Your task to perform on an android device: open app "DoorDash - Dasher" (install if not already installed) Image 0: 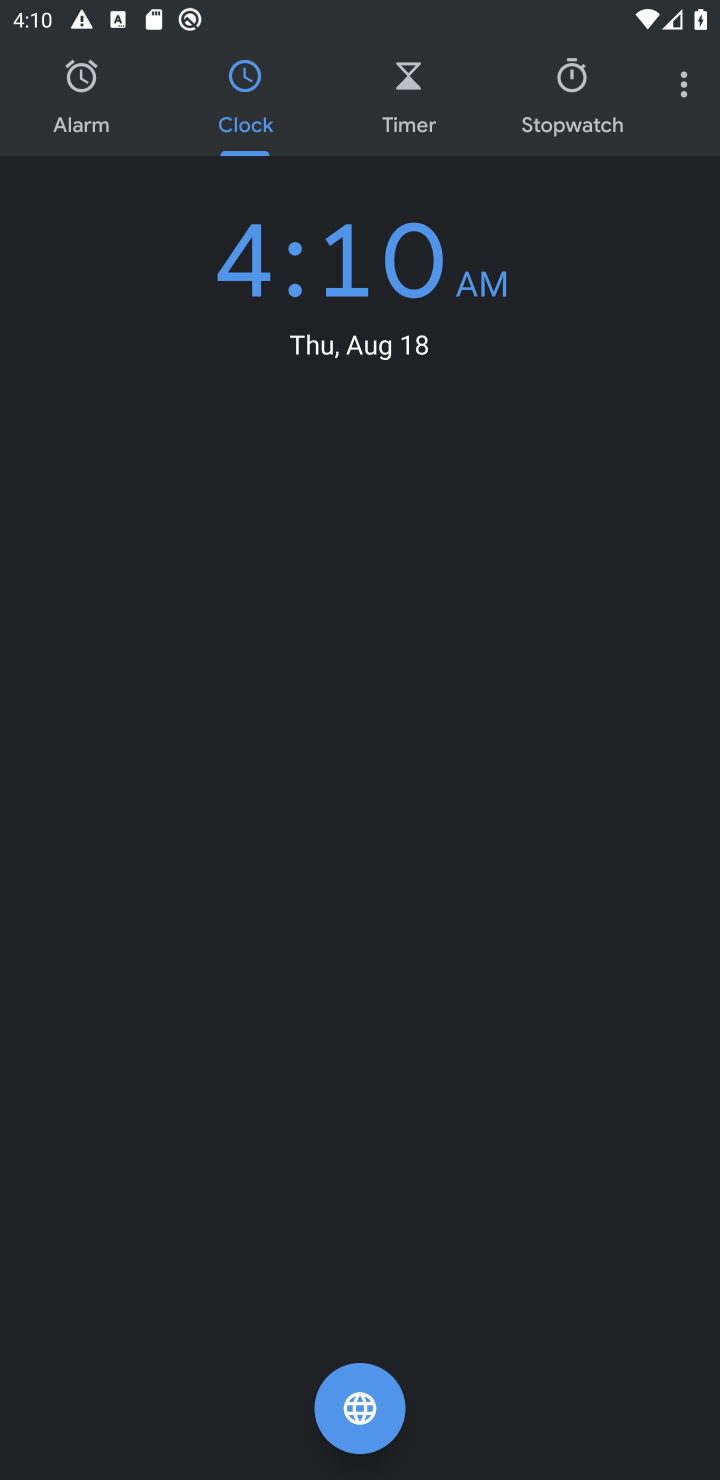
Step 0: press home button
Your task to perform on an android device: open app "DoorDash - Dasher" (install if not already installed) Image 1: 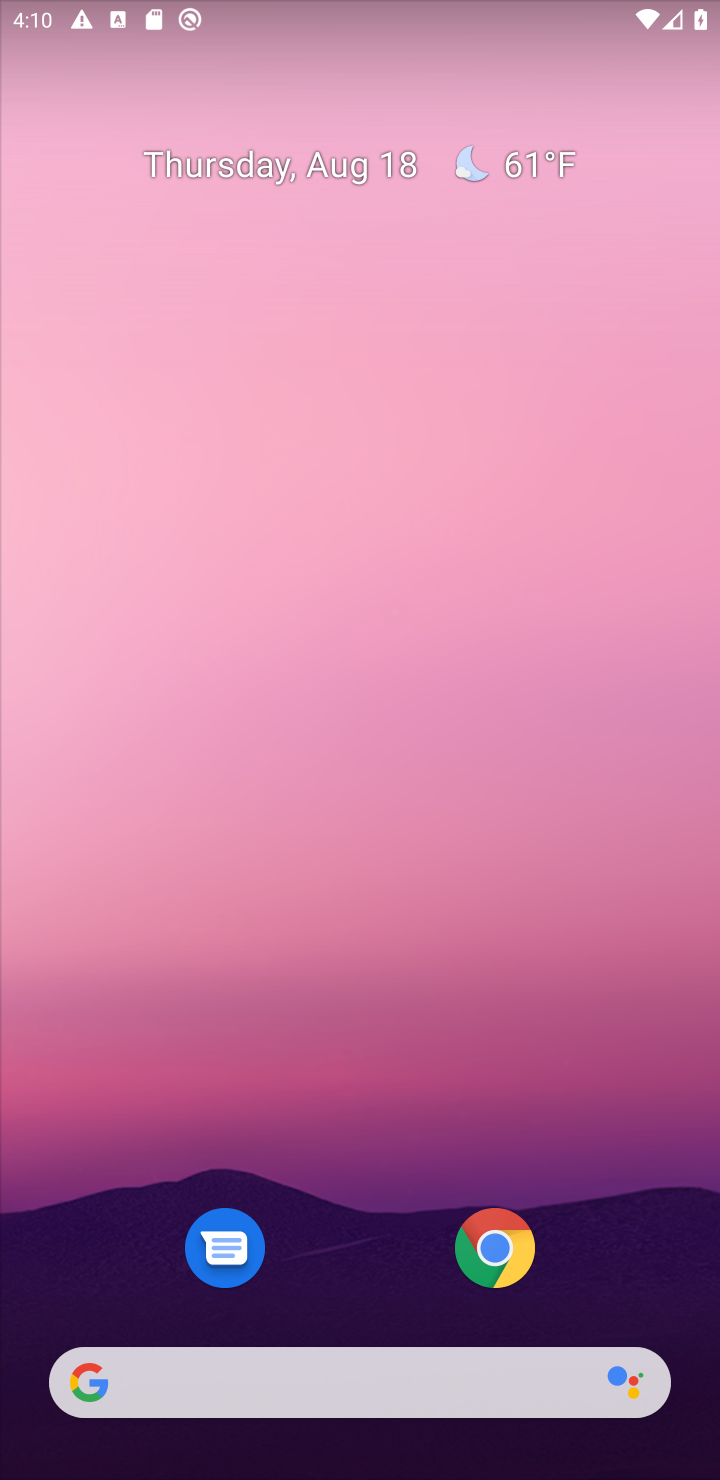
Step 1: drag from (378, 1321) to (354, 40)
Your task to perform on an android device: open app "DoorDash - Dasher" (install if not already installed) Image 2: 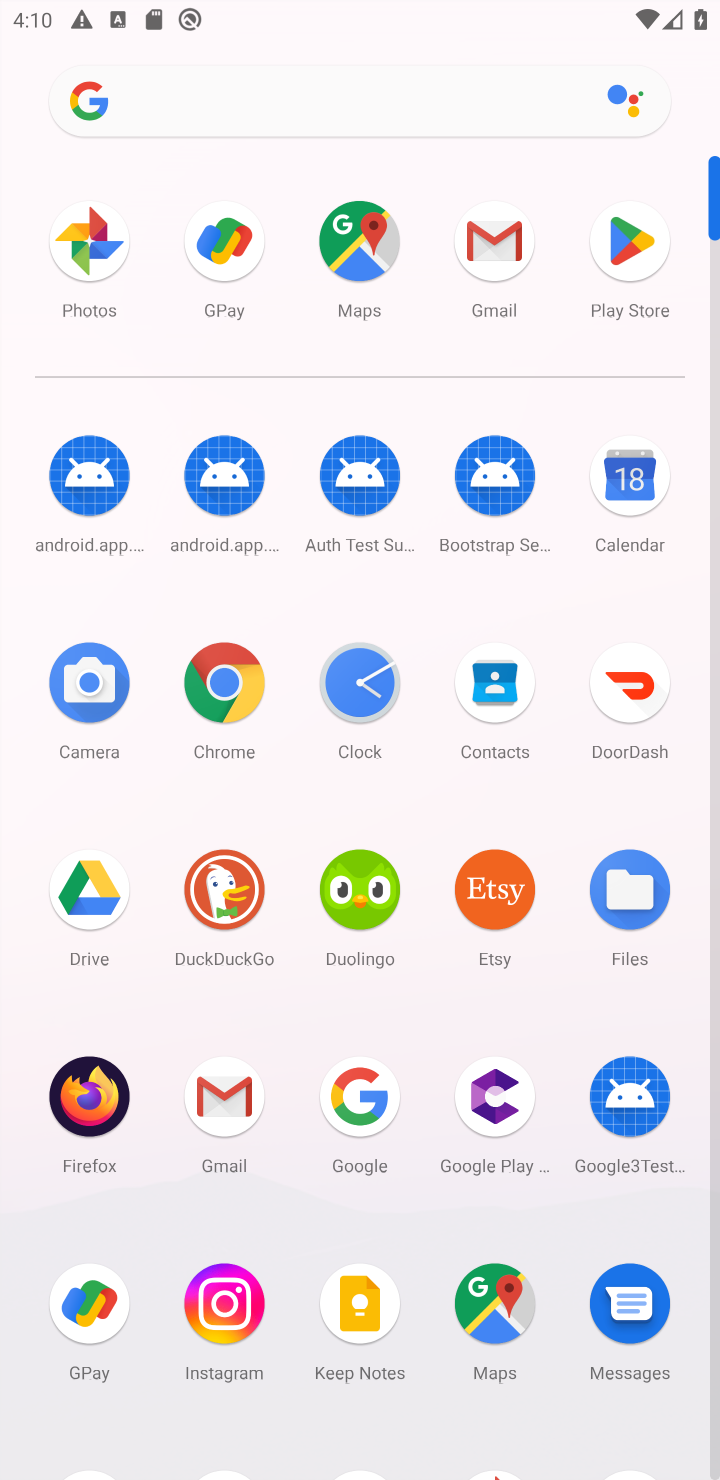
Step 2: click (620, 243)
Your task to perform on an android device: open app "DoorDash - Dasher" (install if not already installed) Image 3: 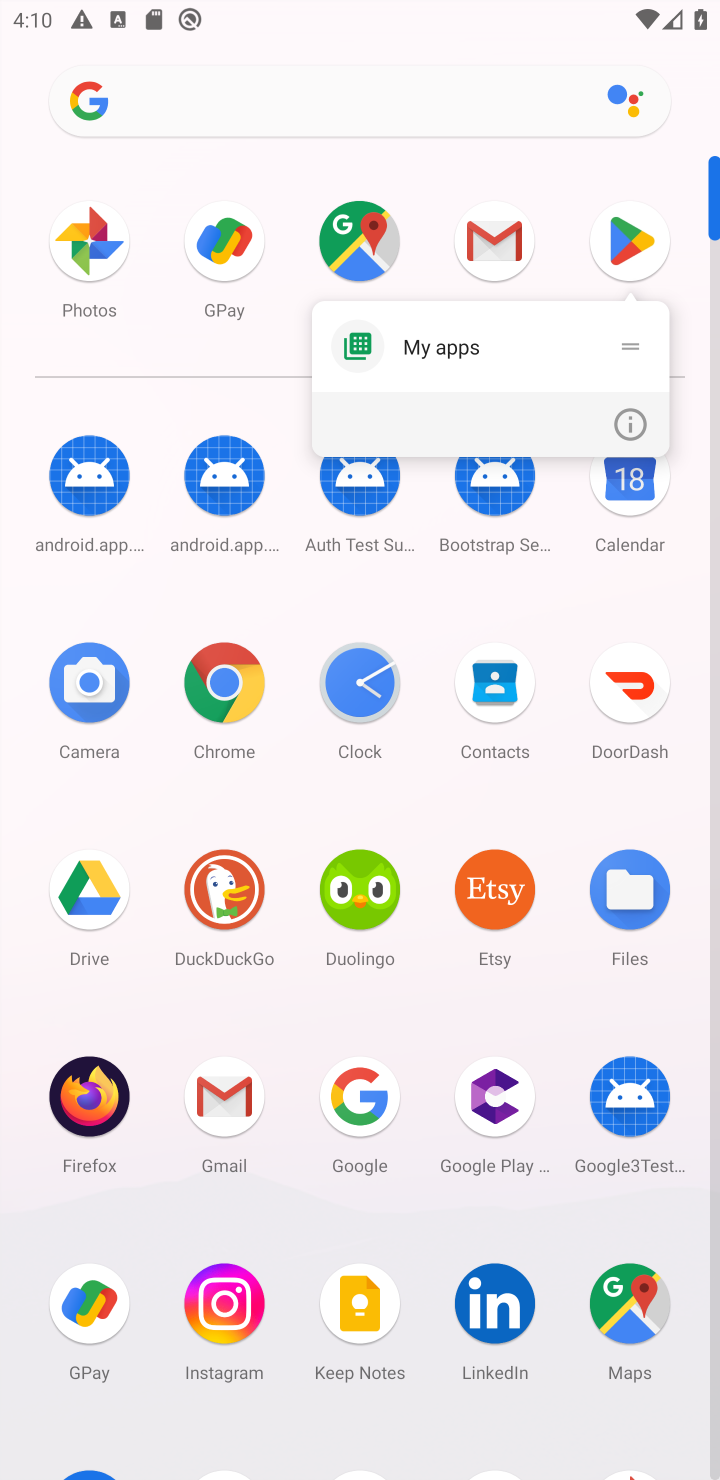
Step 3: click (626, 233)
Your task to perform on an android device: open app "DoorDash - Dasher" (install if not already installed) Image 4: 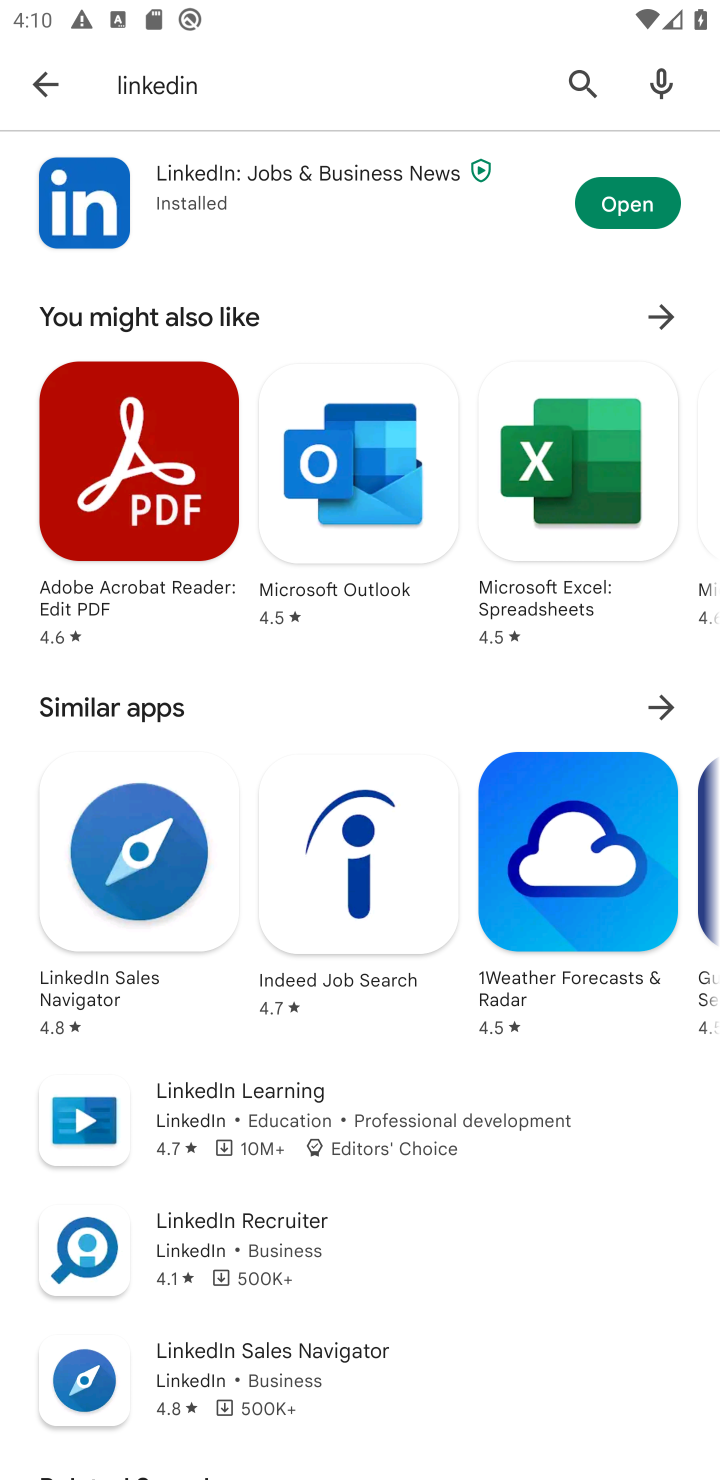
Step 4: click (582, 79)
Your task to perform on an android device: open app "DoorDash - Dasher" (install if not already installed) Image 5: 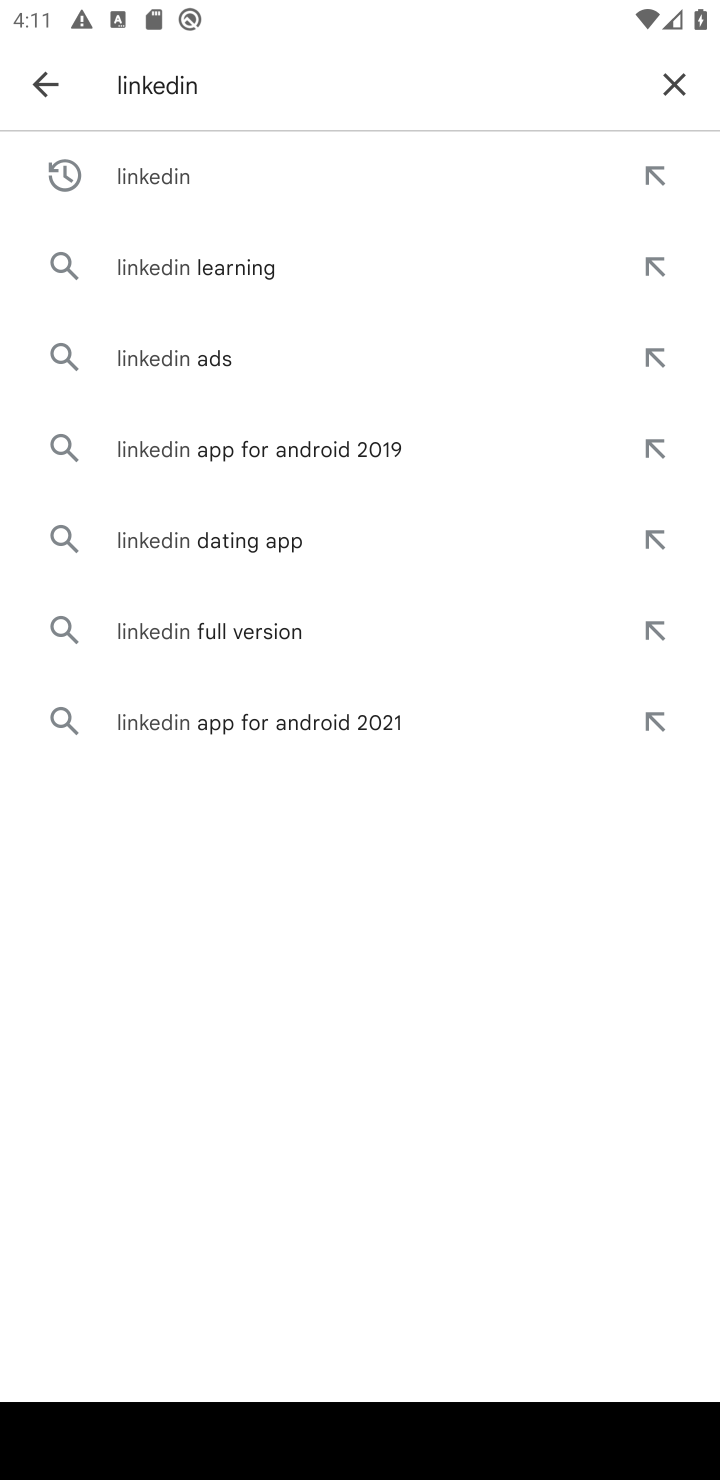
Step 5: click (664, 74)
Your task to perform on an android device: open app "DoorDash - Dasher" (install if not already installed) Image 6: 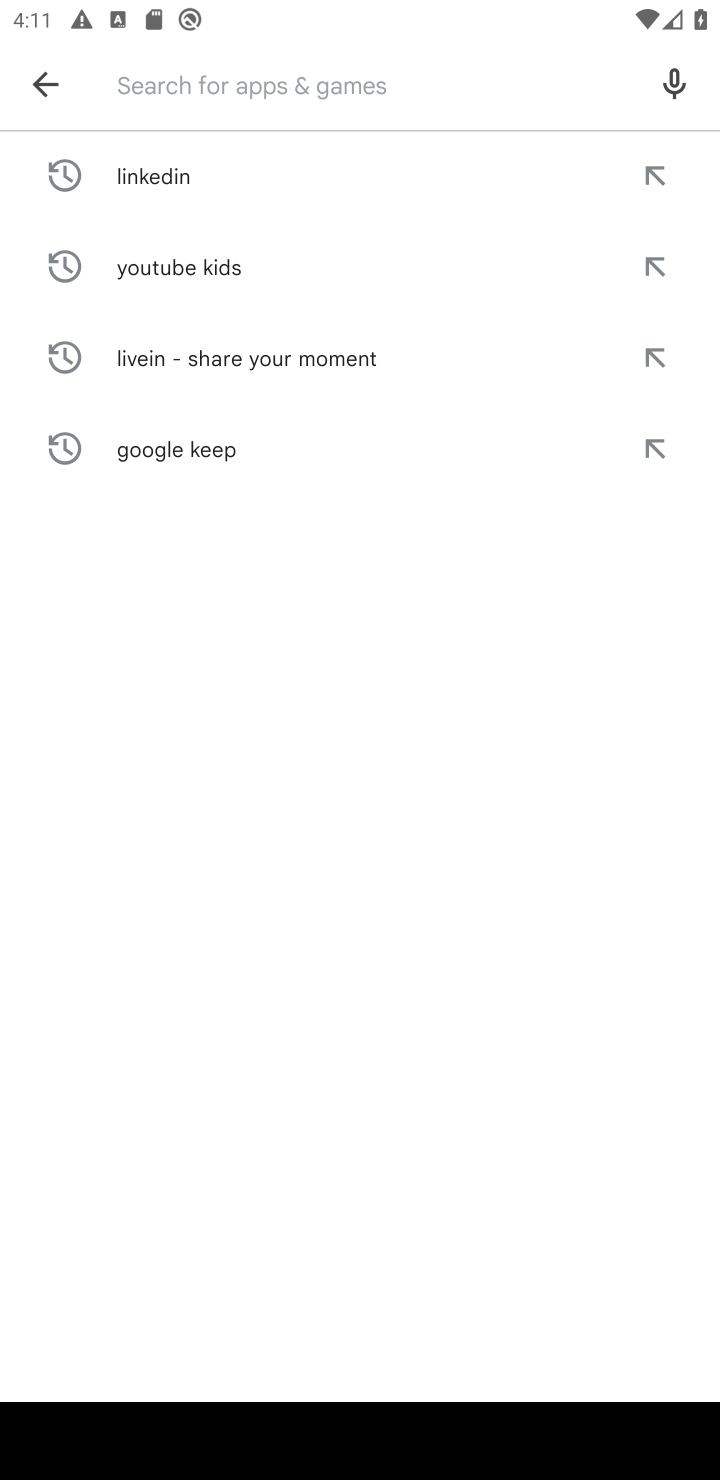
Step 6: type "DoorDash - Dashe"
Your task to perform on an android device: open app "DoorDash - Dasher" (install if not already installed) Image 7: 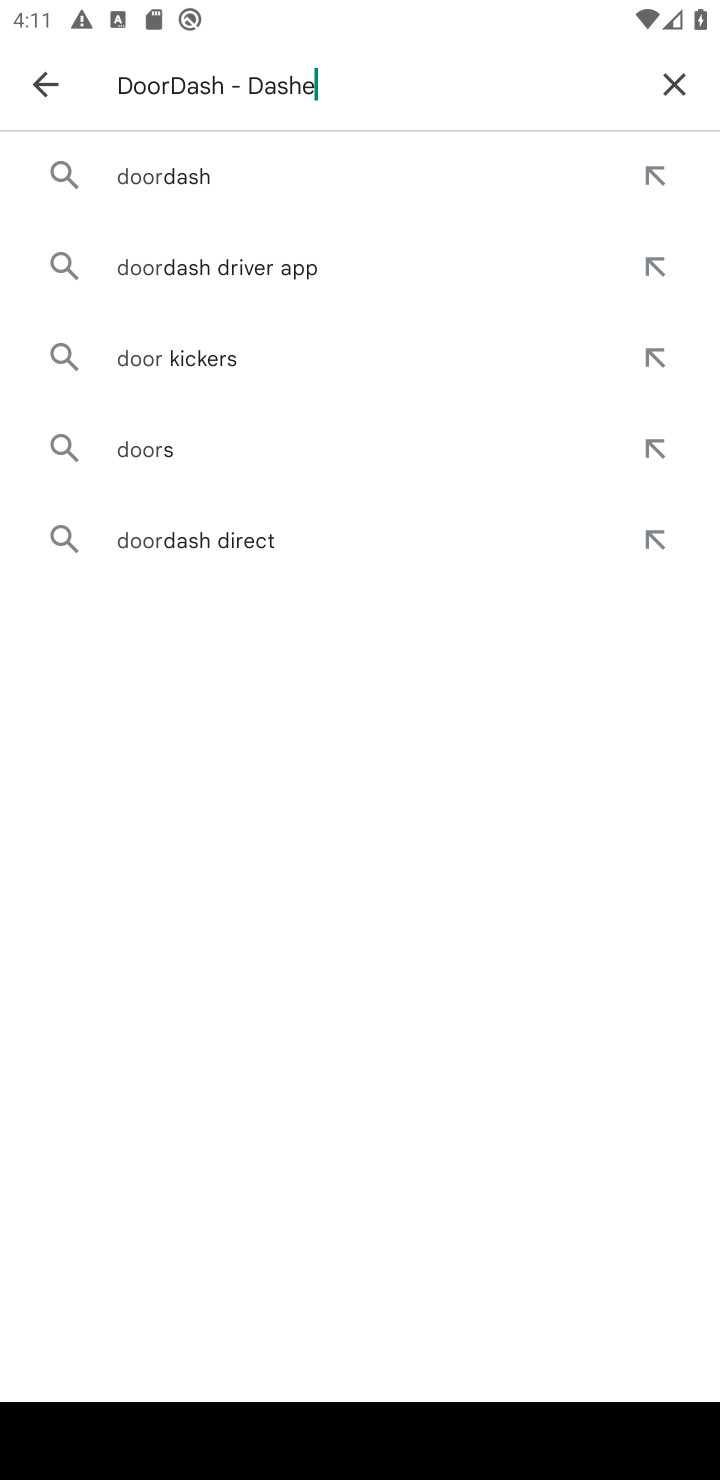
Step 7: type ""
Your task to perform on an android device: open app "DoorDash - Dasher" (install if not already installed) Image 8: 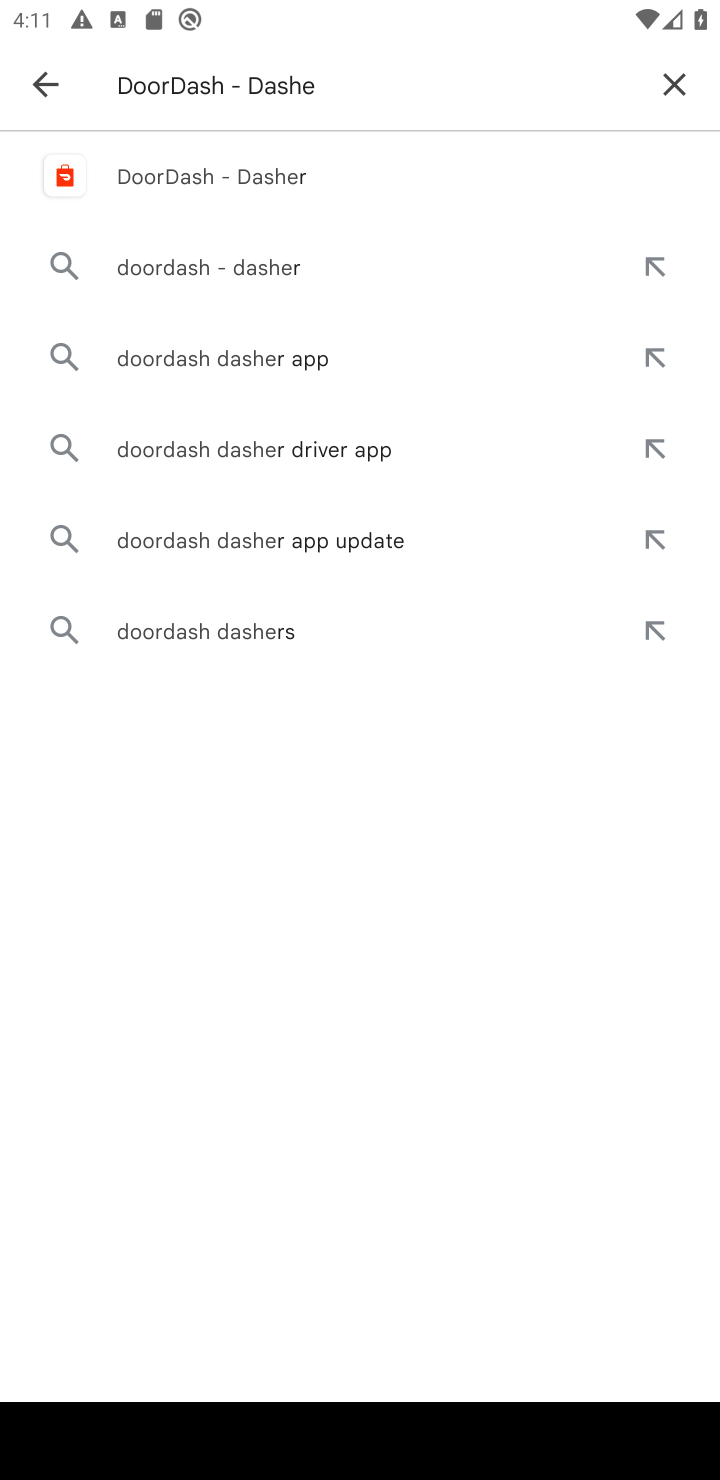
Step 8: click (262, 183)
Your task to perform on an android device: open app "DoorDash - Dasher" (install if not already installed) Image 9: 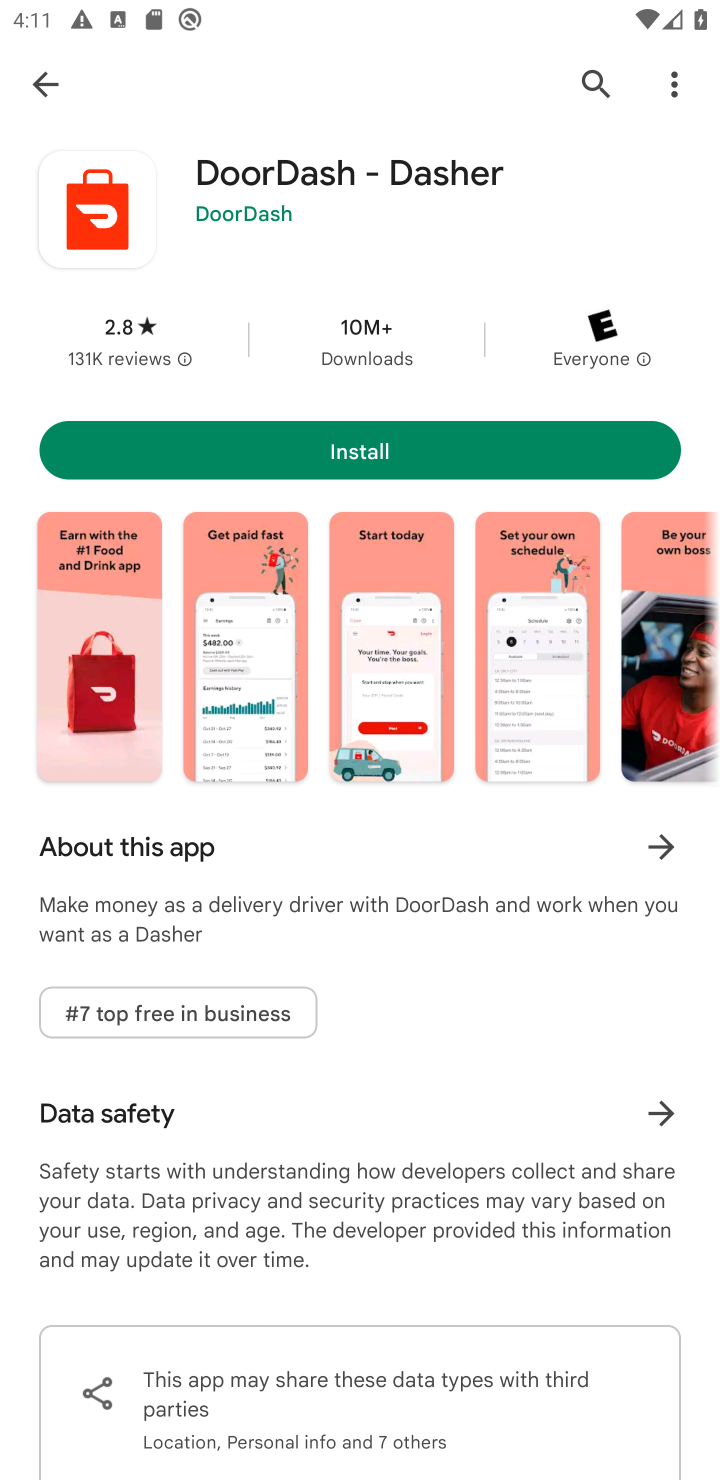
Step 9: click (270, 448)
Your task to perform on an android device: open app "DoorDash - Dasher" (install if not already installed) Image 10: 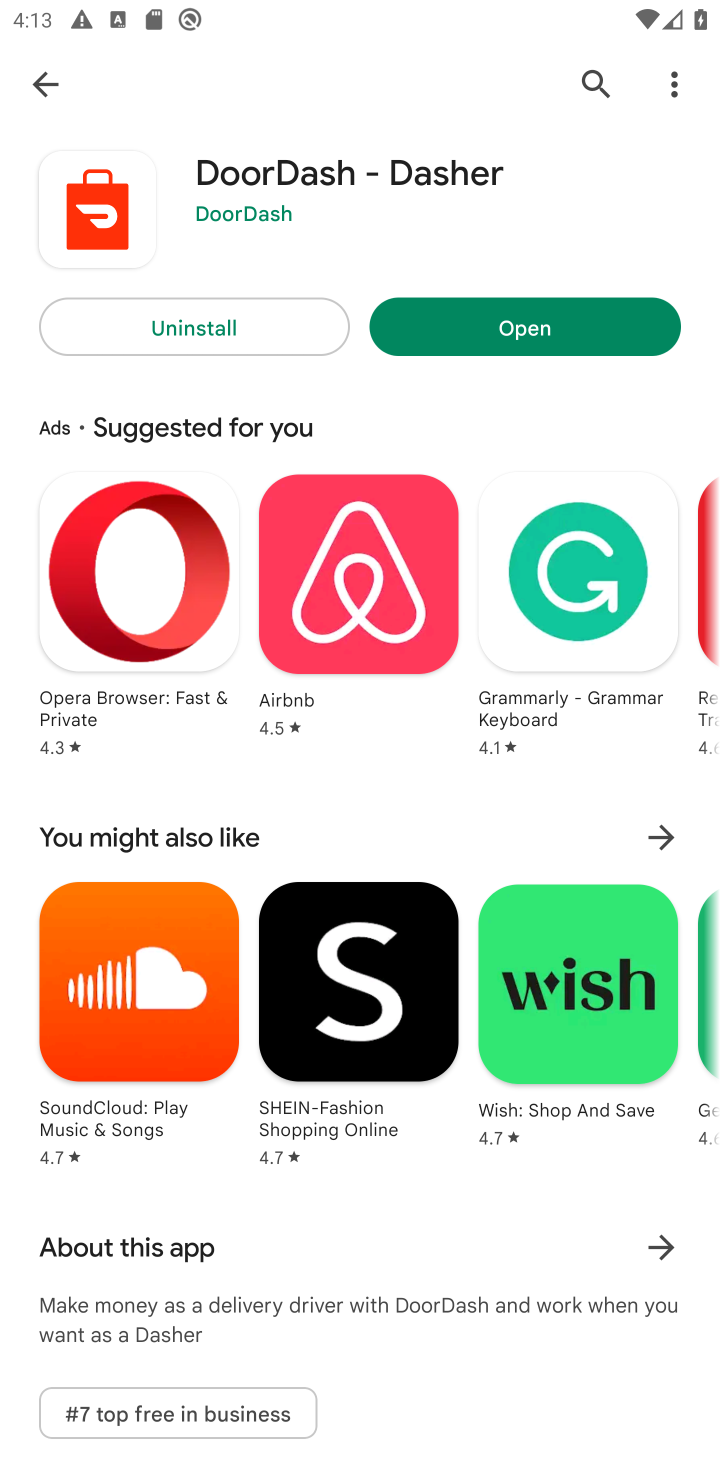
Step 10: click (505, 325)
Your task to perform on an android device: open app "DoorDash - Dasher" (install if not already installed) Image 11: 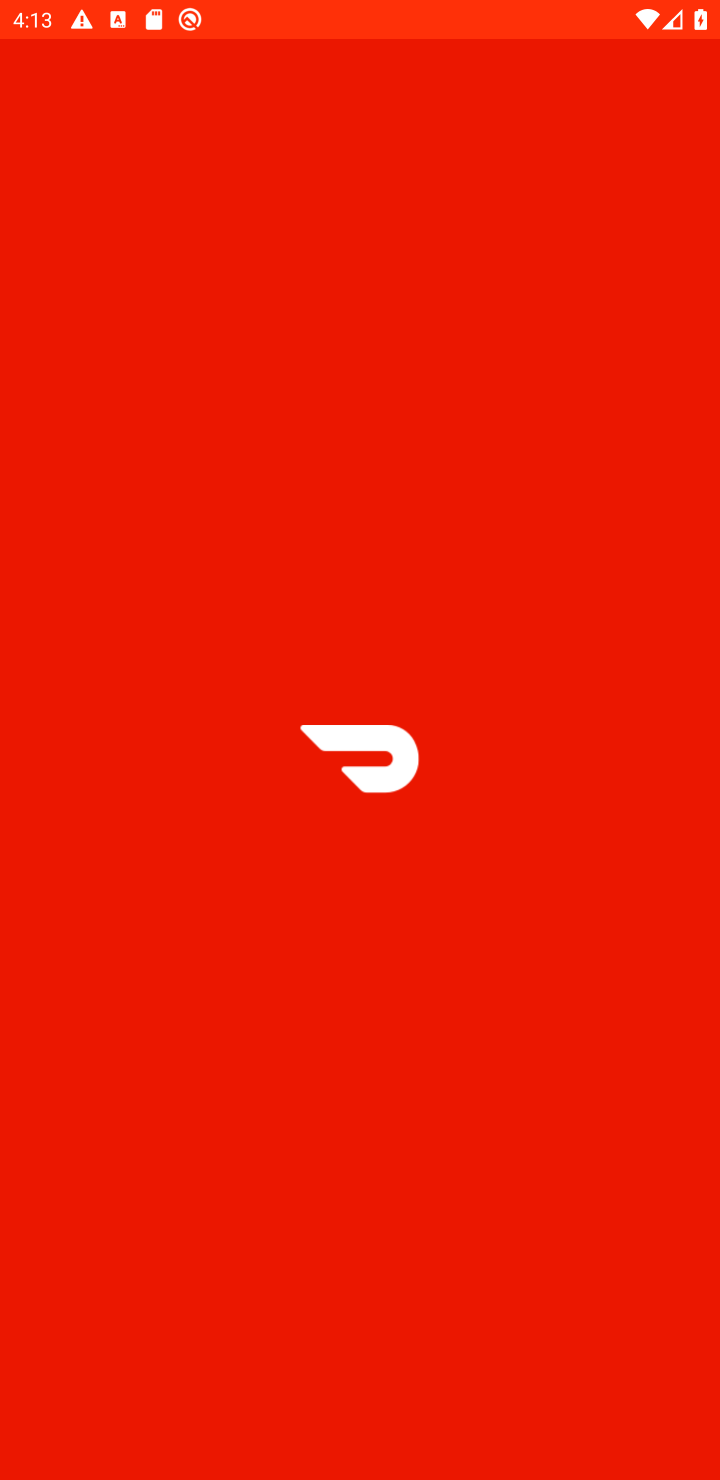
Step 11: task complete